Your task to perform on an android device: toggle priority inbox in the gmail app Image 0: 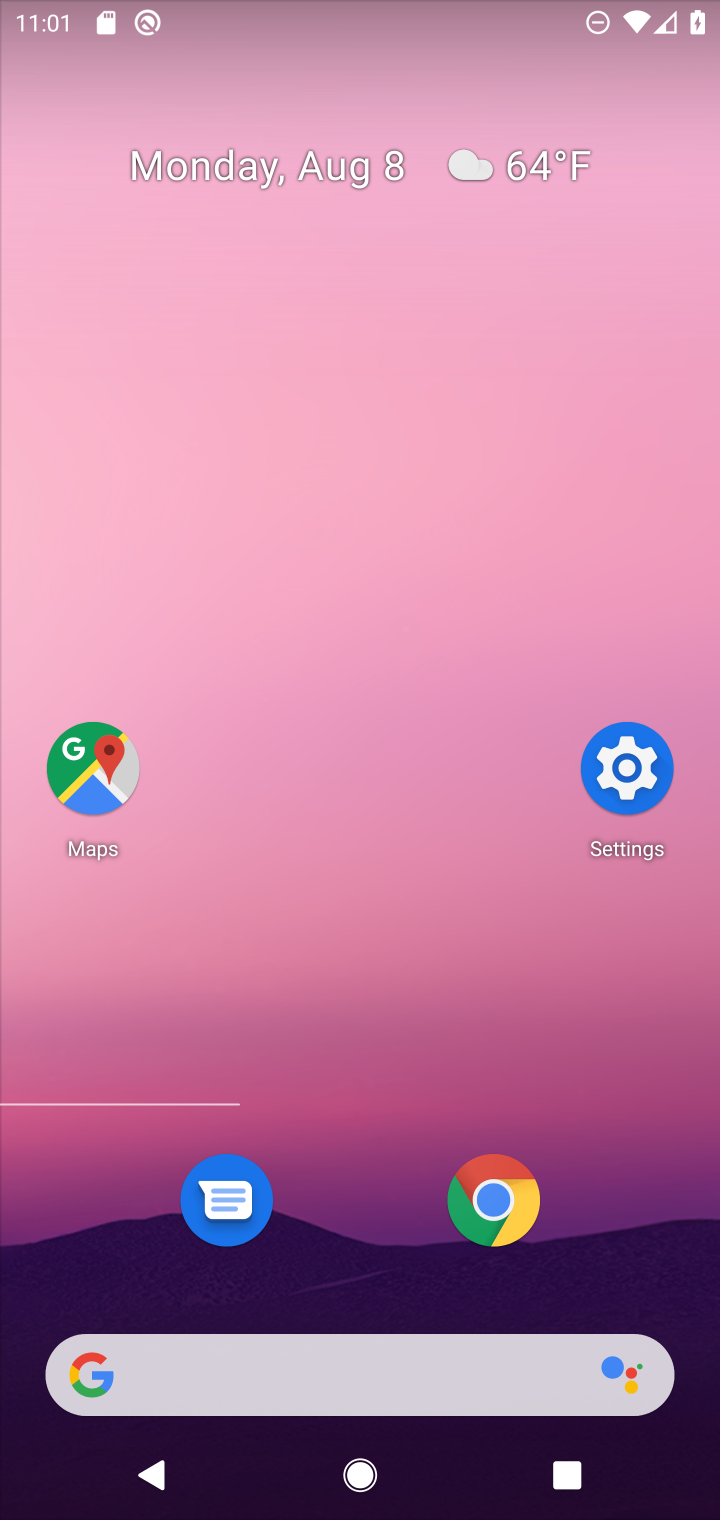
Step 0: drag from (383, 1385) to (485, 392)
Your task to perform on an android device: toggle priority inbox in the gmail app Image 1: 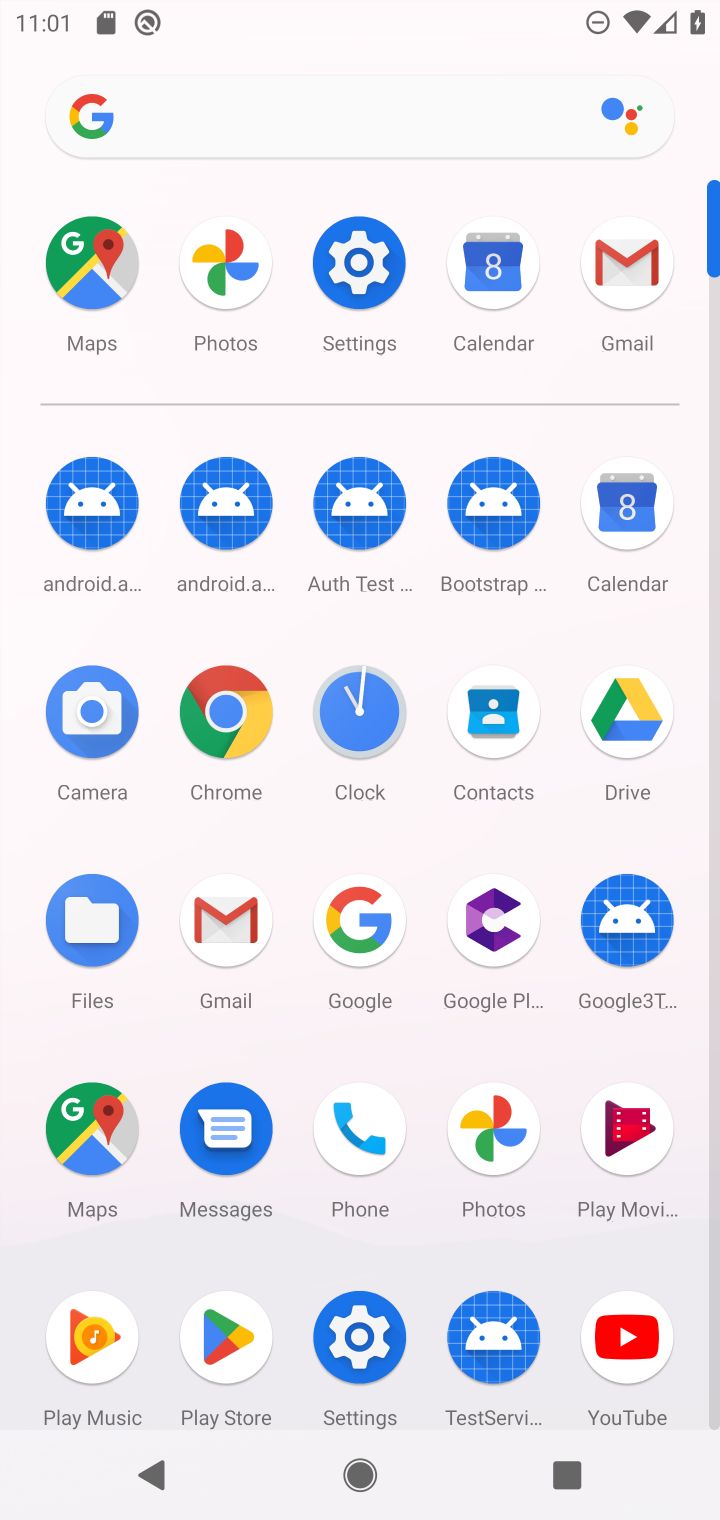
Step 1: click (642, 277)
Your task to perform on an android device: toggle priority inbox in the gmail app Image 2: 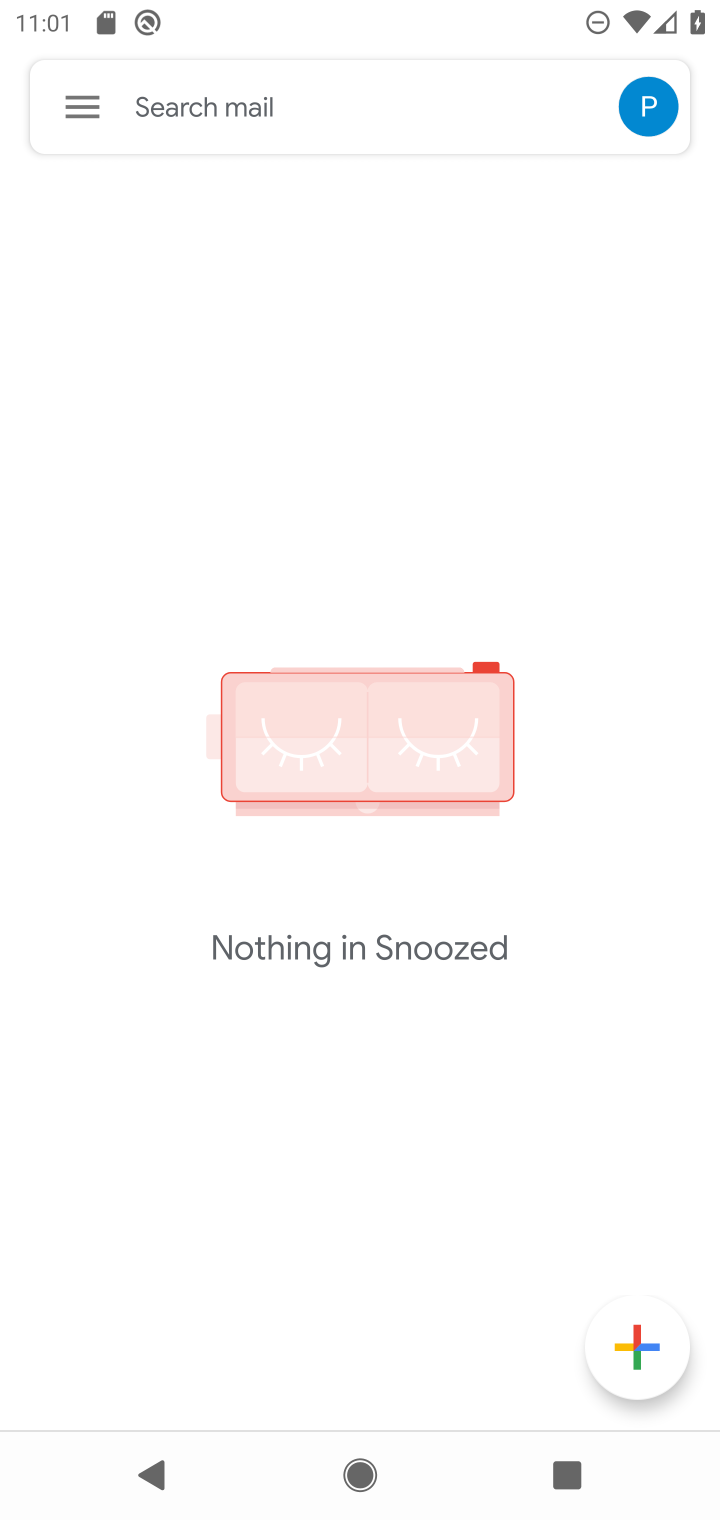
Step 2: click (65, 99)
Your task to perform on an android device: toggle priority inbox in the gmail app Image 3: 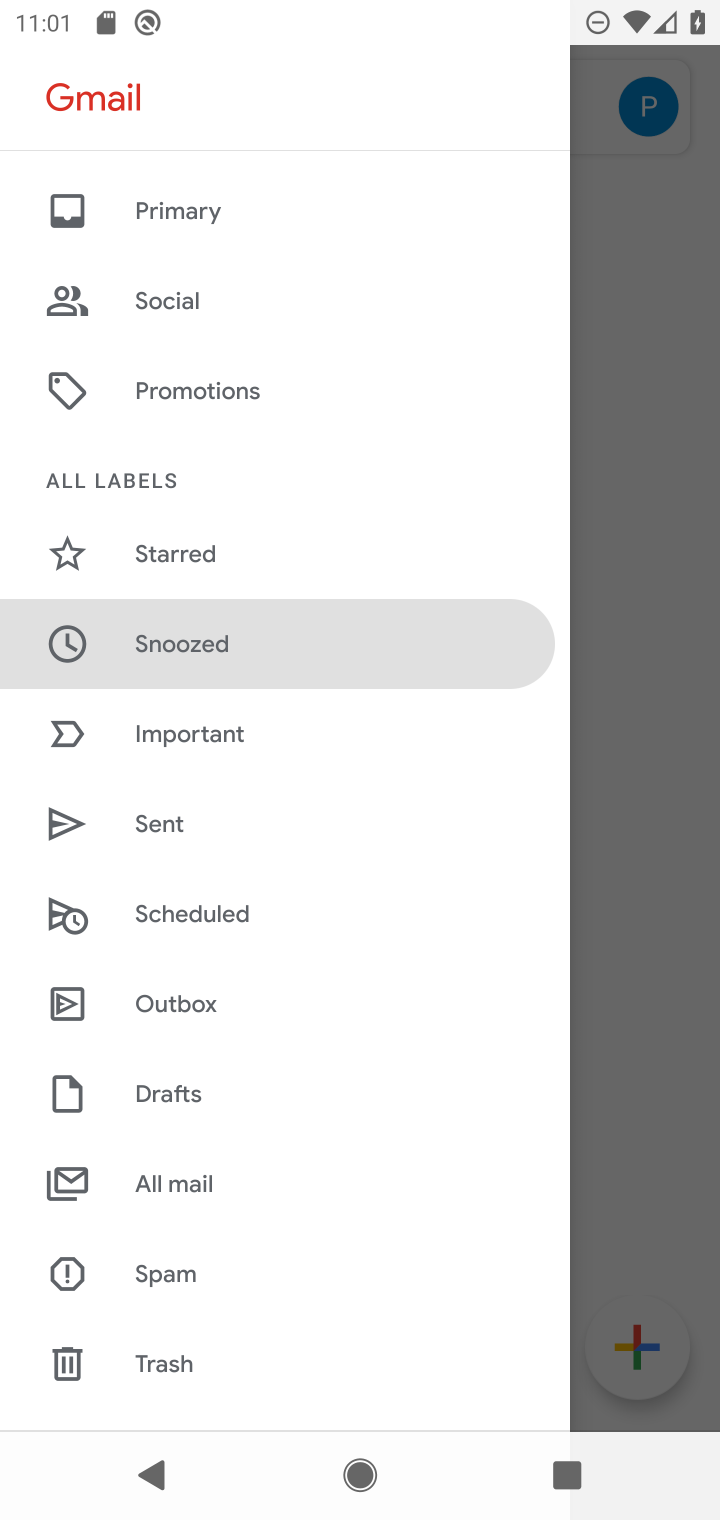
Step 3: drag from (299, 1206) to (442, 262)
Your task to perform on an android device: toggle priority inbox in the gmail app Image 4: 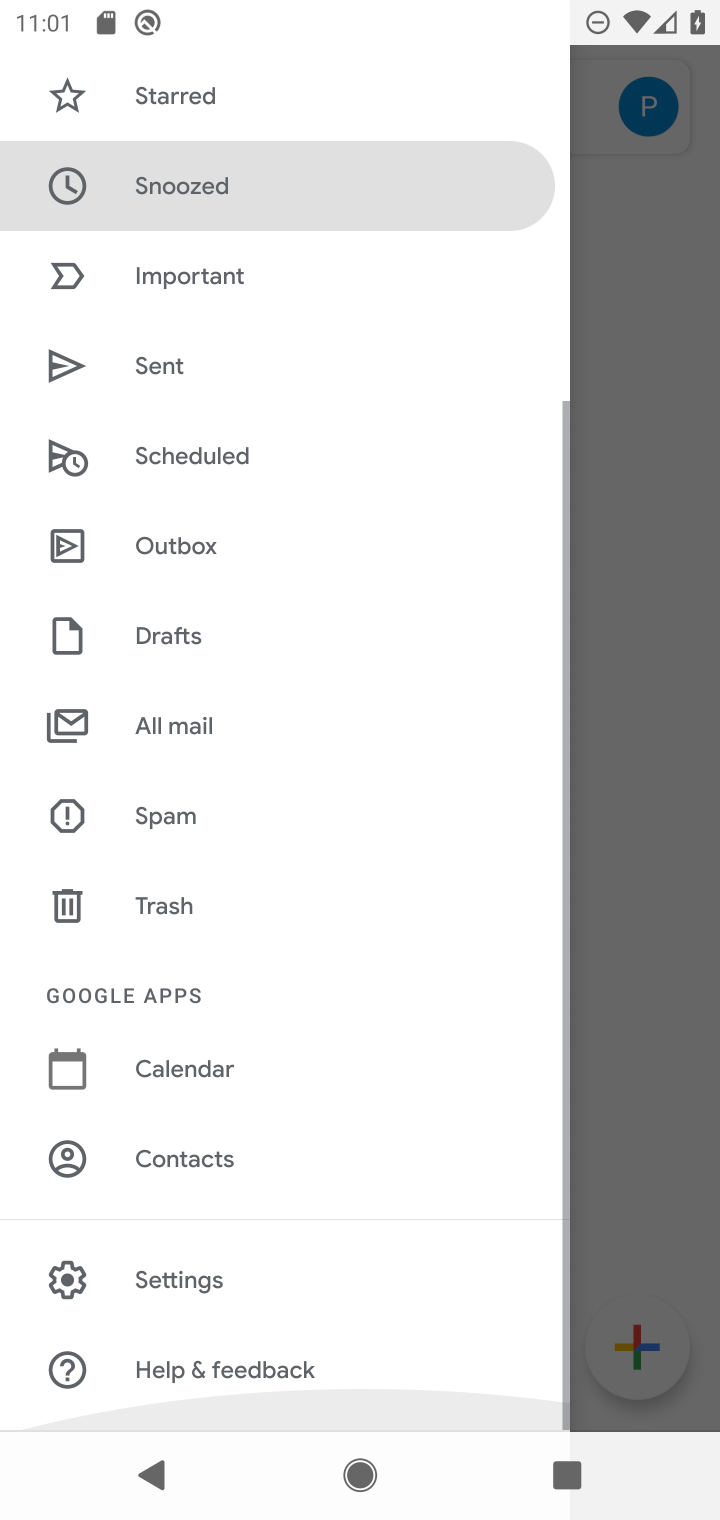
Step 4: click (220, 1280)
Your task to perform on an android device: toggle priority inbox in the gmail app Image 5: 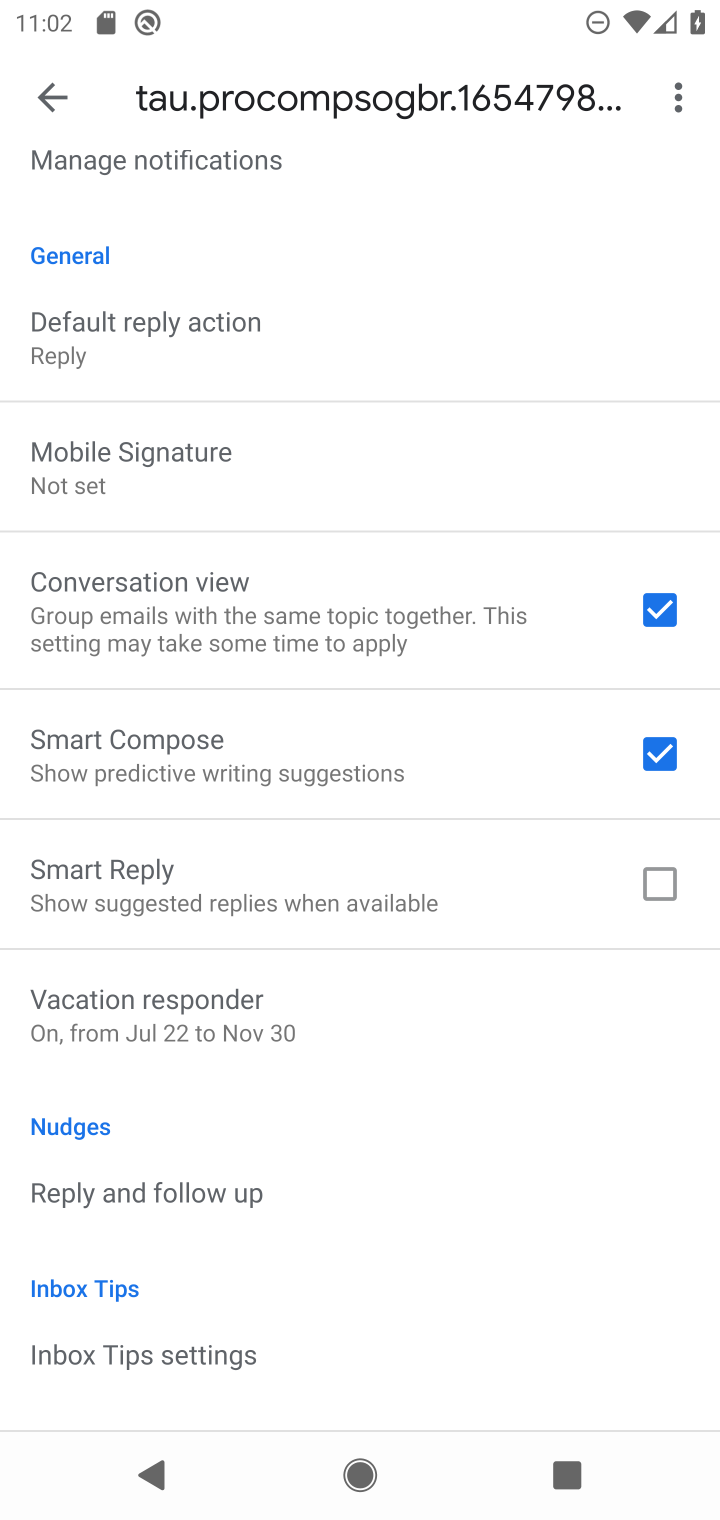
Step 5: drag from (439, 269) to (402, 1029)
Your task to perform on an android device: toggle priority inbox in the gmail app Image 6: 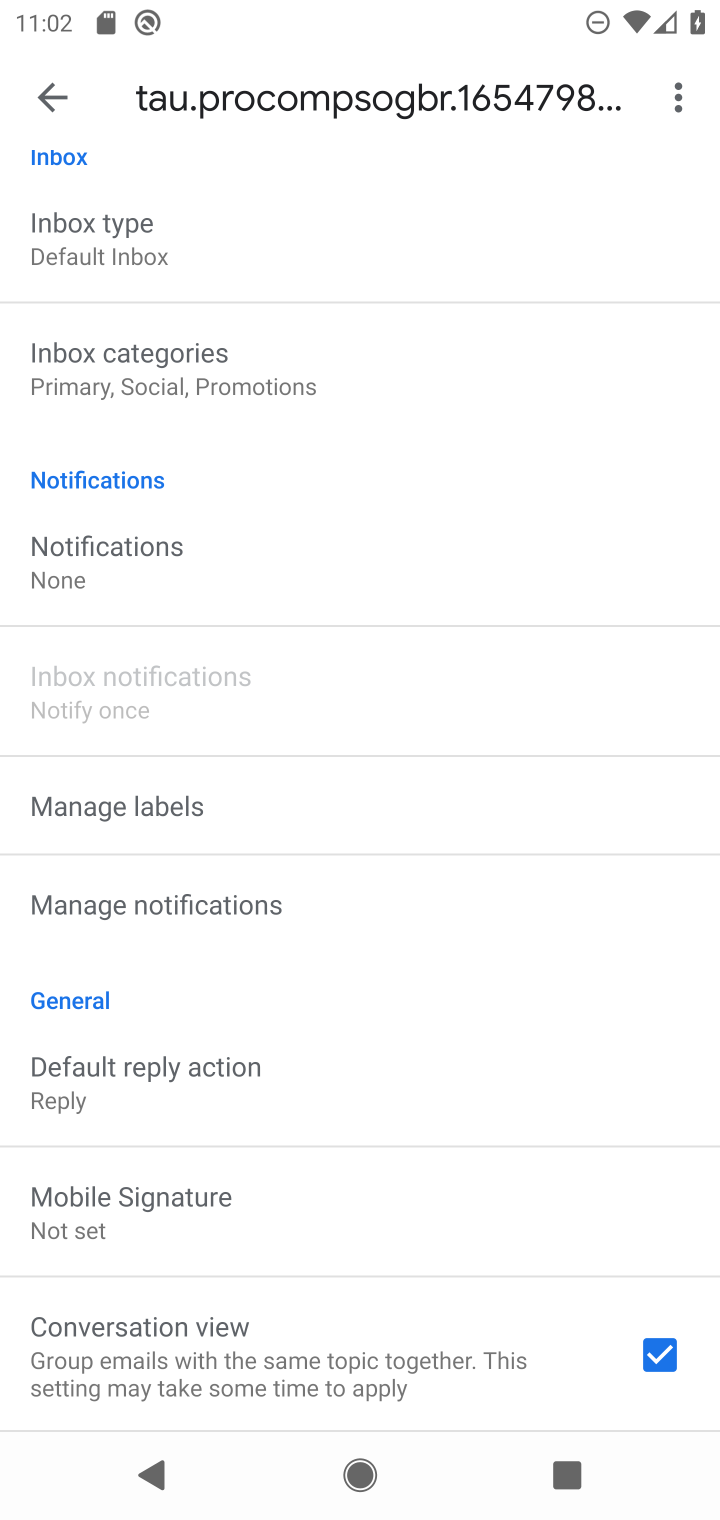
Step 6: click (83, 241)
Your task to perform on an android device: toggle priority inbox in the gmail app Image 7: 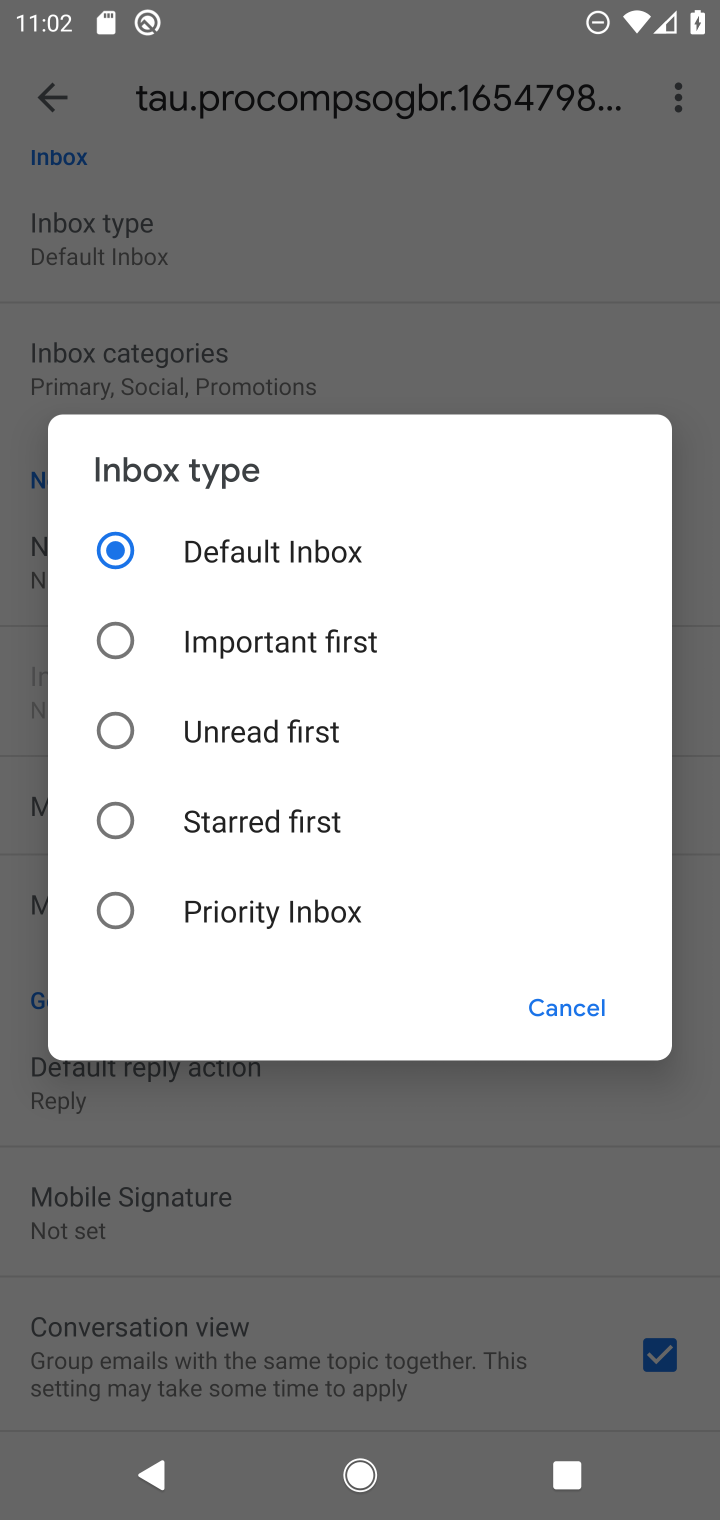
Step 7: click (112, 902)
Your task to perform on an android device: toggle priority inbox in the gmail app Image 8: 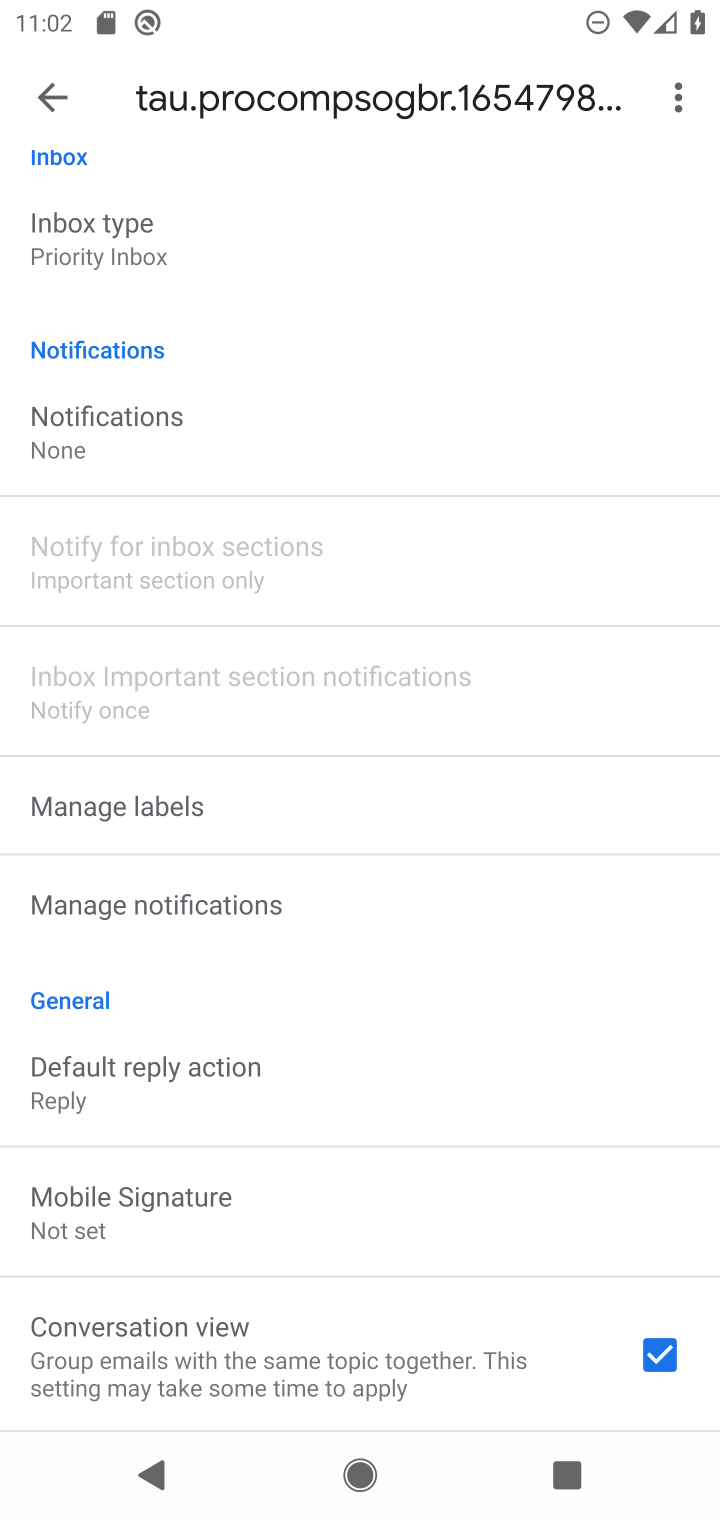
Step 8: task complete